Your task to perform on an android device: toggle show notifications on the lock screen Image 0: 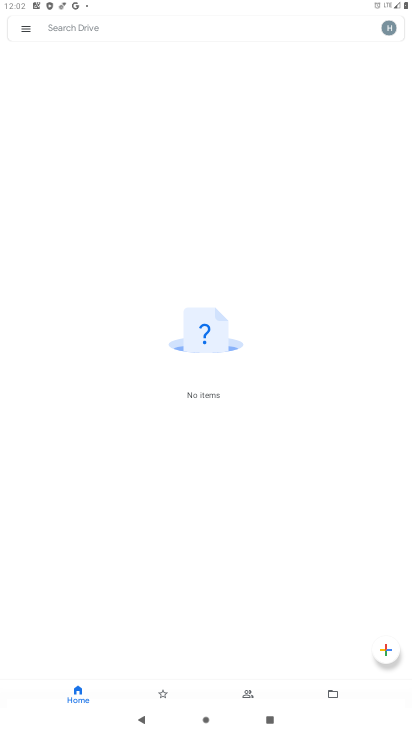
Step 0: press home button
Your task to perform on an android device: toggle show notifications on the lock screen Image 1: 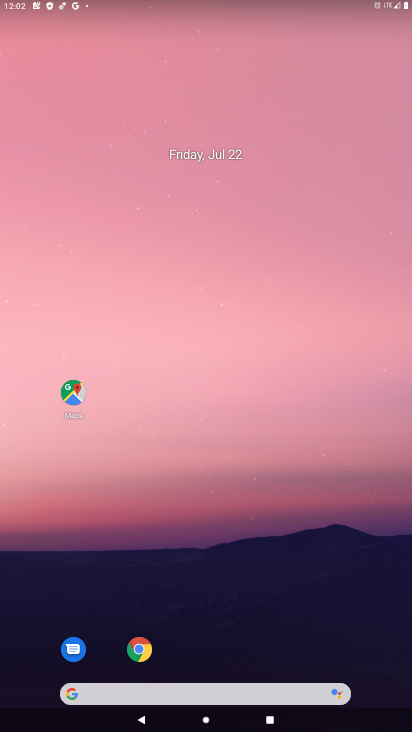
Step 1: drag from (293, 628) to (178, 103)
Your task to perform on an android device: toggle show notifications on the lock screen Image 2: 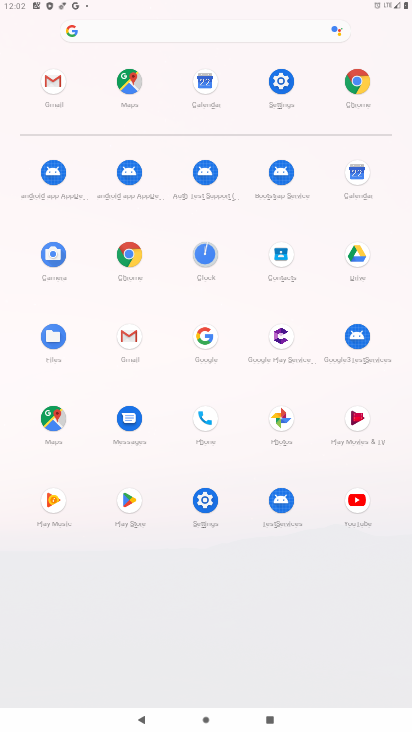
Step 2: click (289, 82)
Your task to perform on an android device: toggle show notifications on the lock screen Image 3: 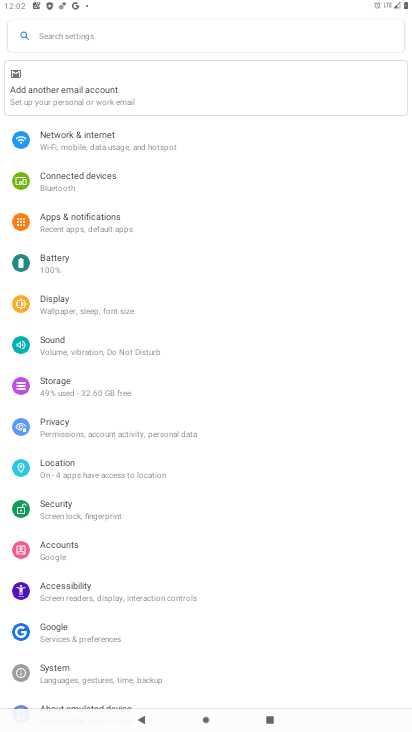
Step 3: click (91, 209)
Your task to perform on an android device: toggle show notifications on the lock screen Image 4: 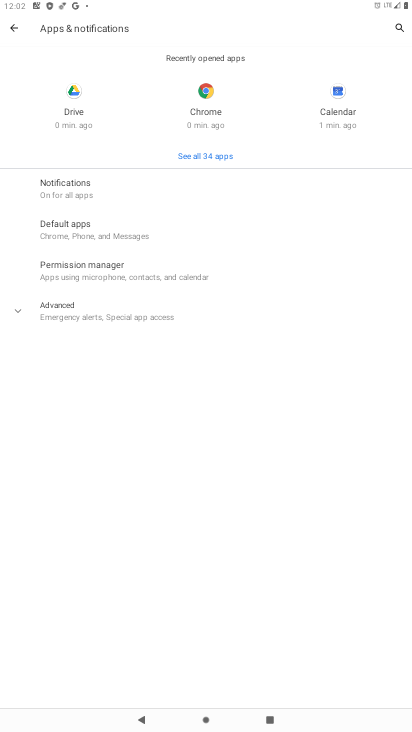
Step 4: click (87, 200)
Your task to perform on an android device: toggle show notifications on the lock screen Image 5: 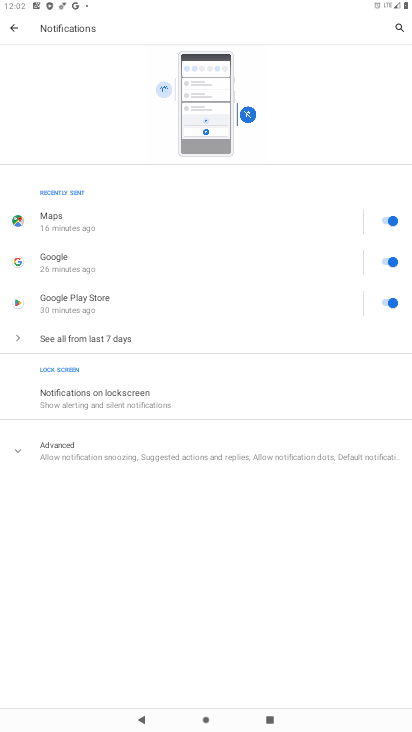
Step 5: click (104, 404)
Your task to perform on an android device: toggle show notifications on the lock screen Image 6: 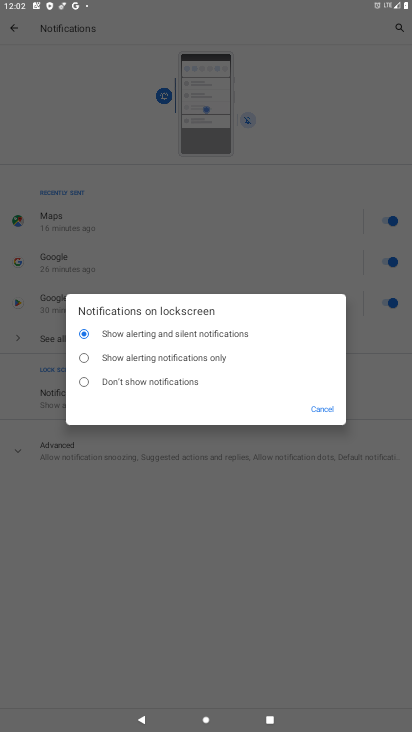
Step 6: task complete